Your task to perform on an android device: change the clock display to analog Image 0: 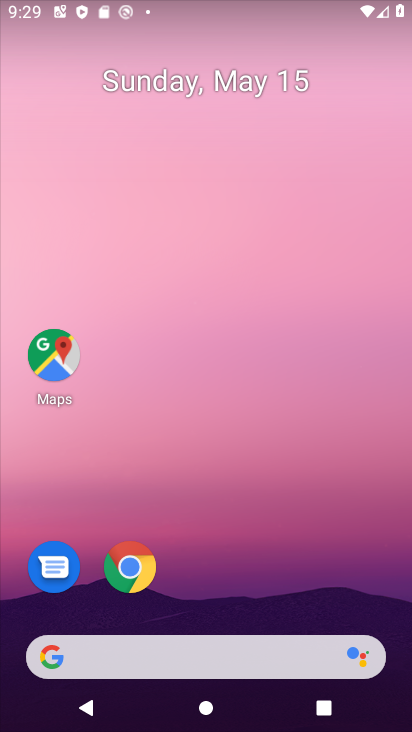
Step 0: drag from (285, 614) to (292, 125)
Your task to perform on an android device: change the clock display to analog Image 1: 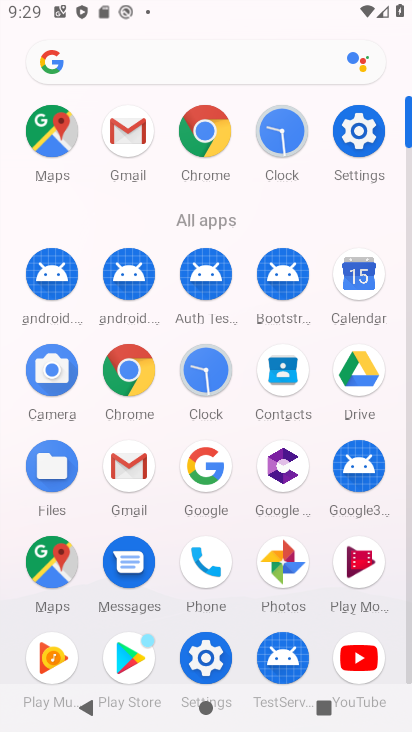
Step 1: click (194, 380)
Your task to perform on an android device: change the clock display to analog Image 2: 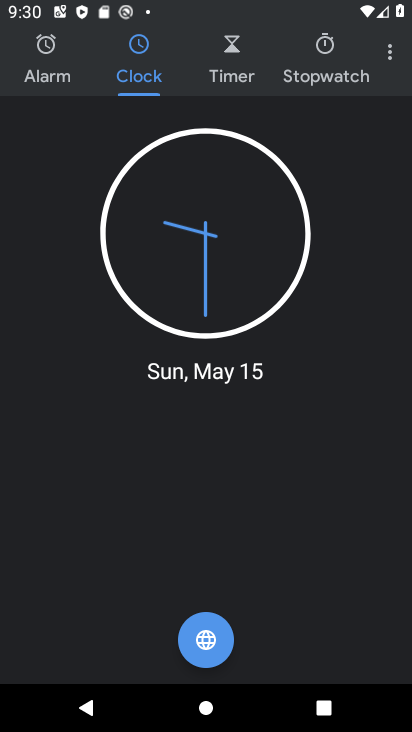
Step 2: click (389, 66)
Your task to perform on an android device: change the clock display to analog Image 3: 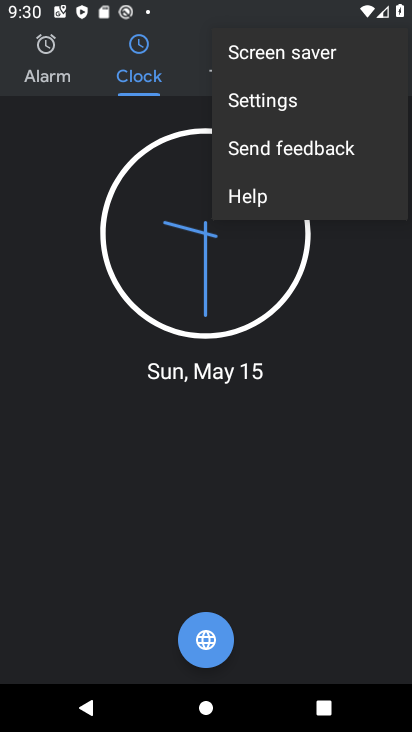
Step 3: click (298, 114)
Your task to perform on an android device: change the clock display to analog Image 4: 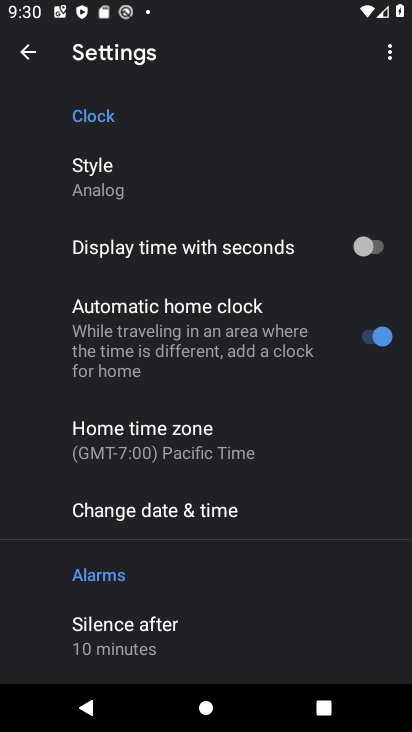
Step 4: task complete